Your task to perform on an android device: open app "Flipkart Online Shopping App" (install if not already installed) Image 0: 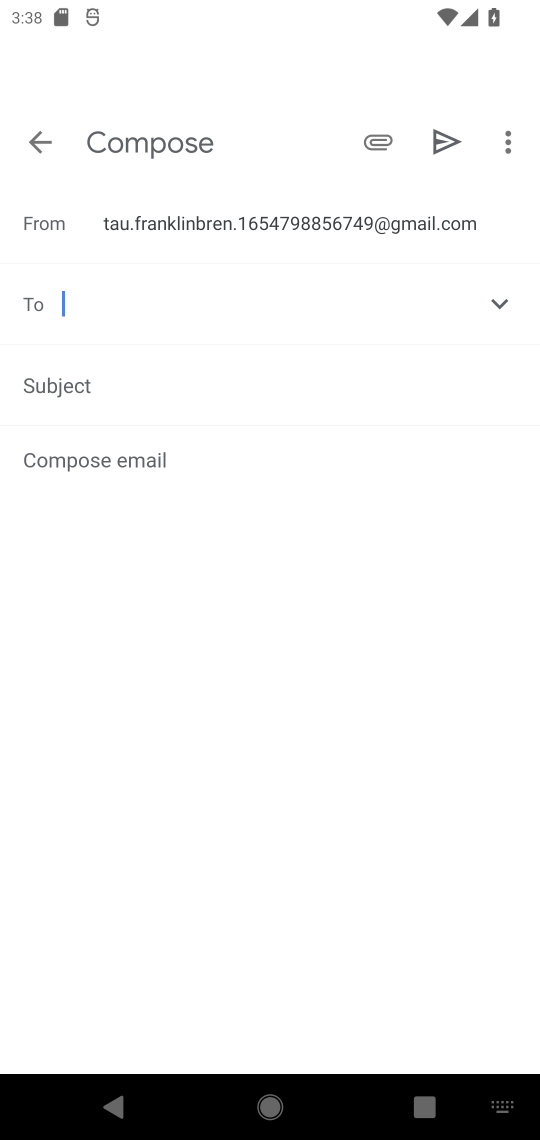
Step 0: press home button
Your task to perform on an android device: open app "Flipkart Online Shopping App" (install if not already installed) Image 1: 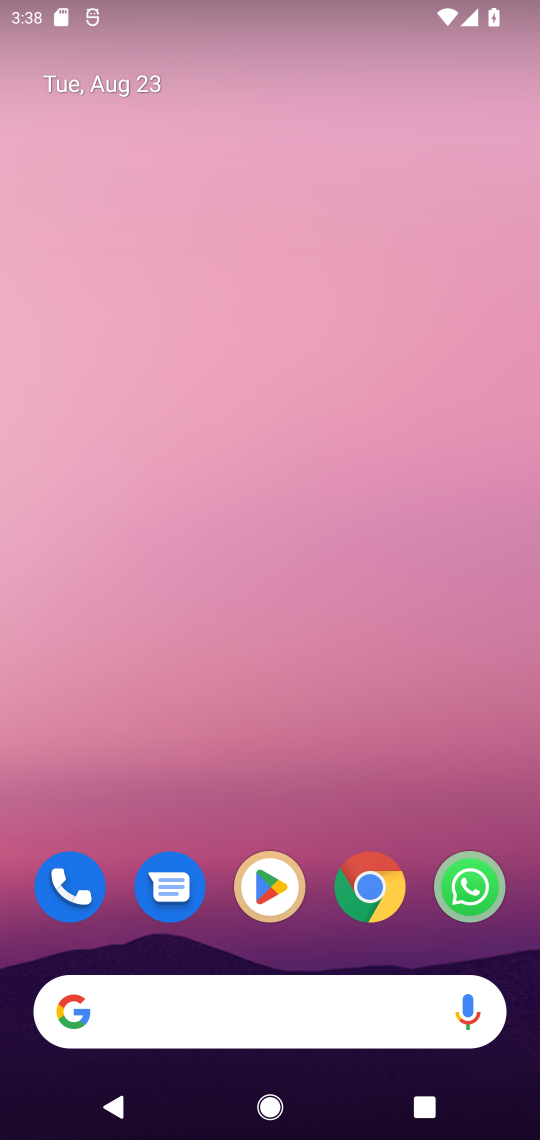
Step 1: click (272, 883)
Your task to perform on an android device: open app "Flipkart Online Shopping App" (install if not already installed) Image 2: 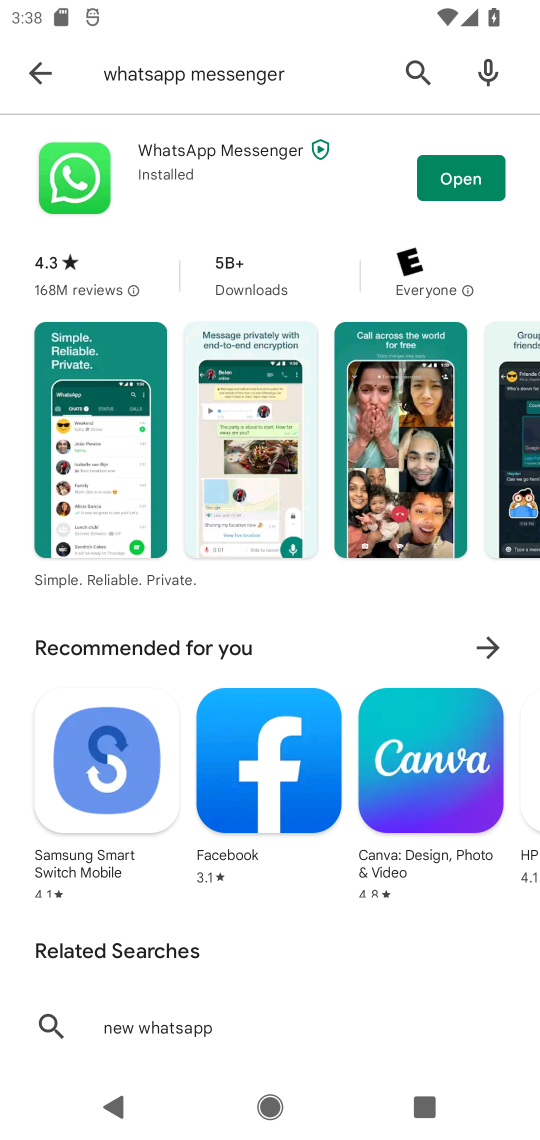
Step 2: click (34, 65)
Your task to perform on an android device: open app "Flipkart Online Shopping App" (install if not already installed) Image 3: 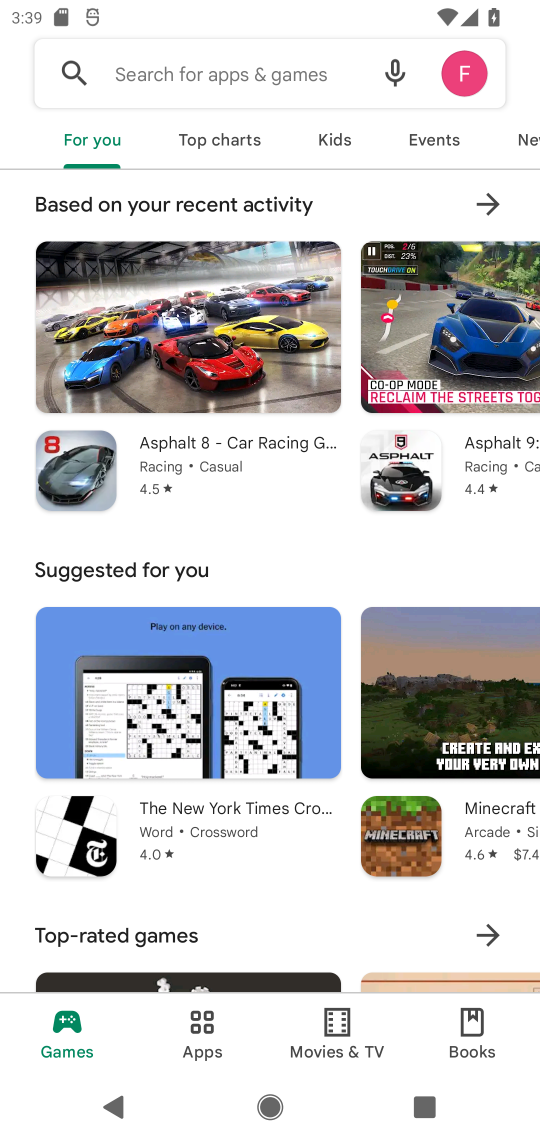
Step 3: click (181, 65)
Your task to perform on an android device: open app "Flipkart Online Shopping App" (install if not already installed) Image 4: 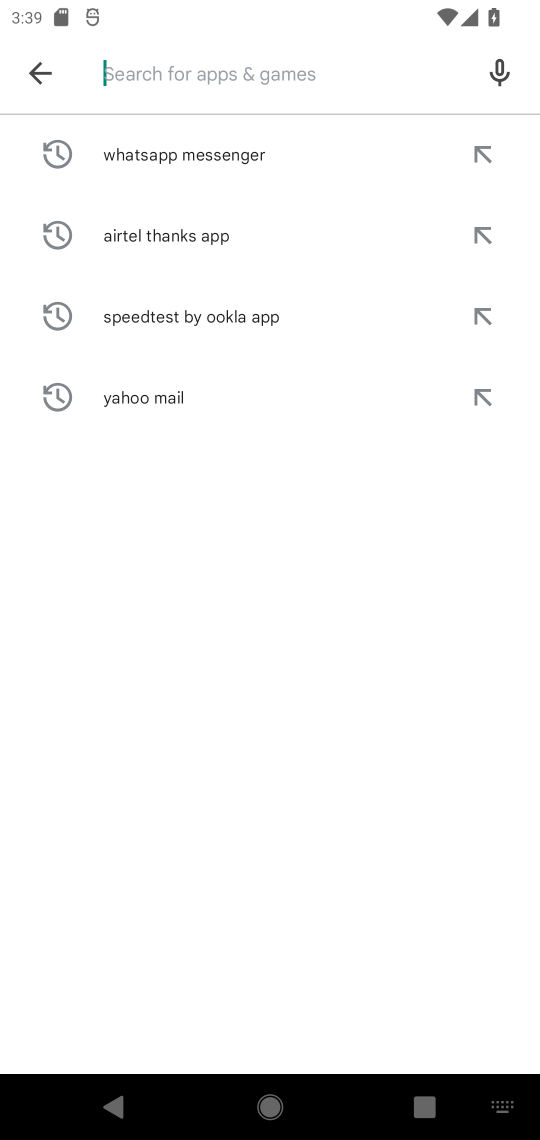
Step 4: type "Flipkart Online Shopping App"
Your task to perform on an android device: open app "Flipkart Online Shopping App" (install if not already installed) Image 5: 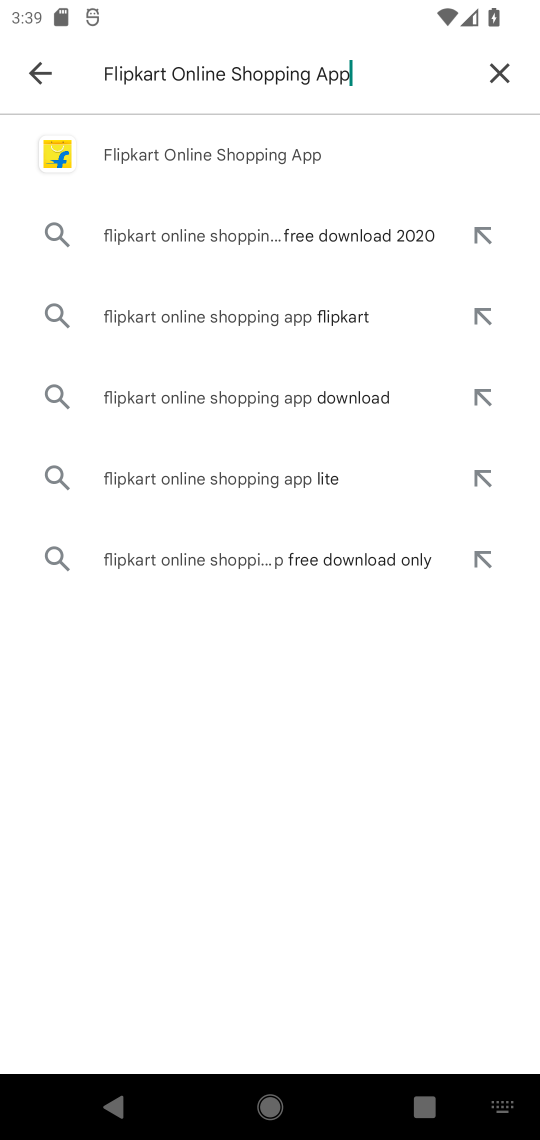
Step 5: click (189, 152)
Your task to perform on an android device: open app "Flipkart Online Shopping App" (install if not already installed) Image 6: 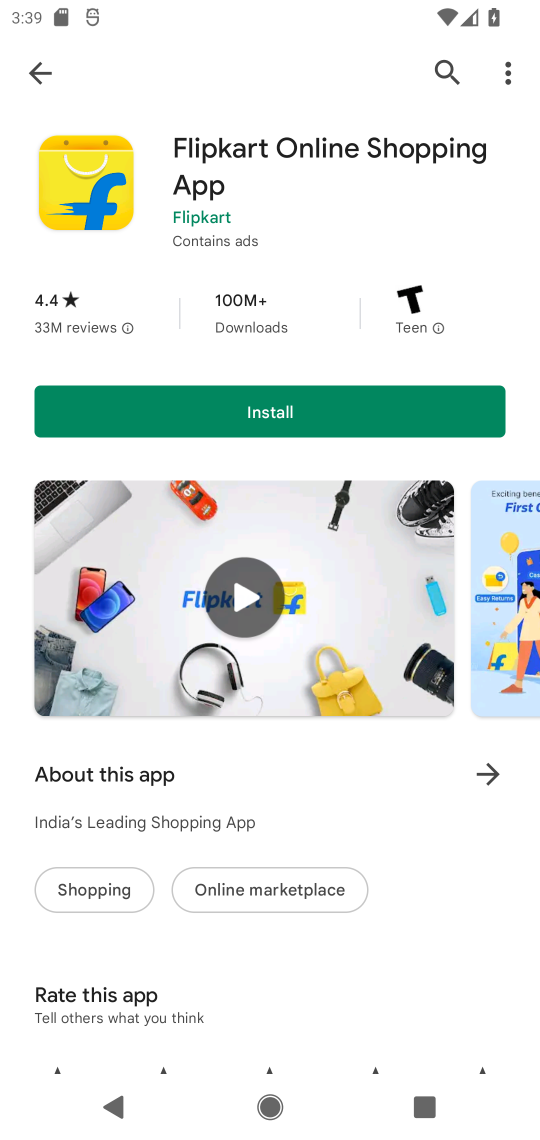
Step 6: click (264, 413)
Your task to perform on an android device: open app "Flipkart Online Shopping App" (install if not already installed) Image 7: 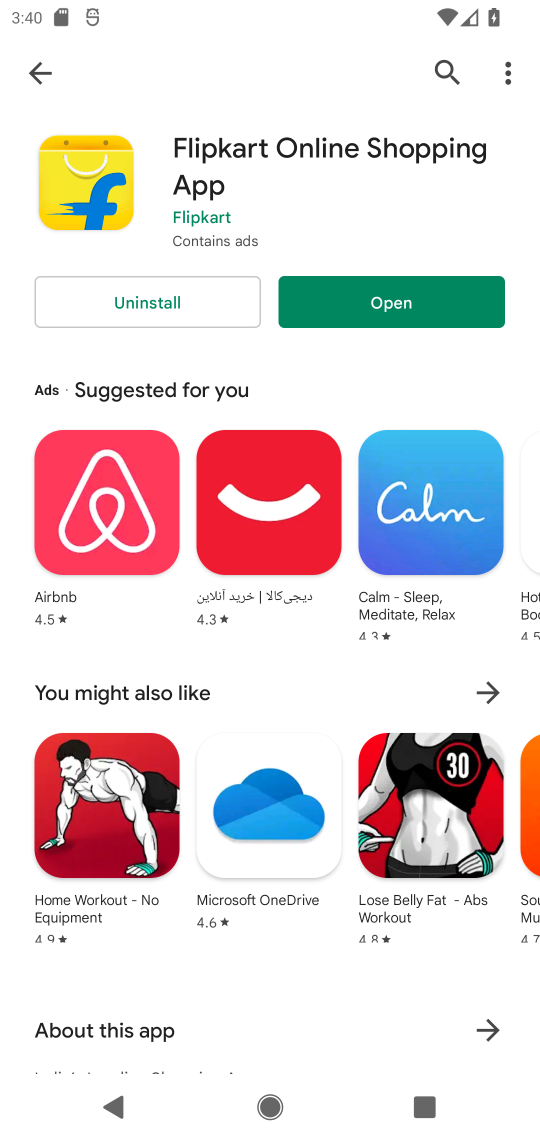
Step 7: click (373, 301)
Your task to perform on an android device: open app "Flipkart Online Shopping App" (install if not already installed) Image 8: 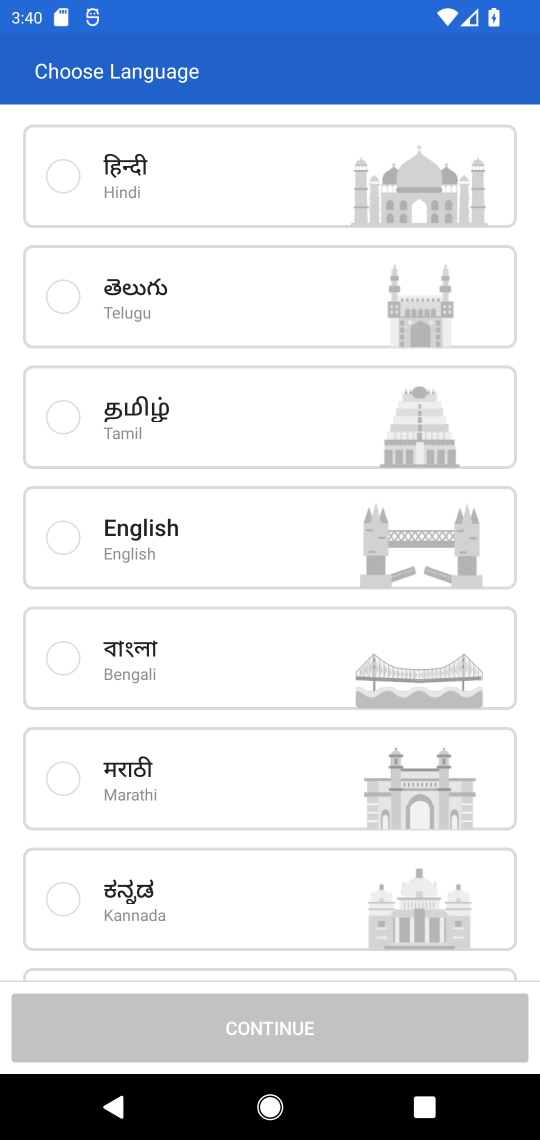
Step 8: task complete